Your task to perform on an android device: delete location history Image 0: 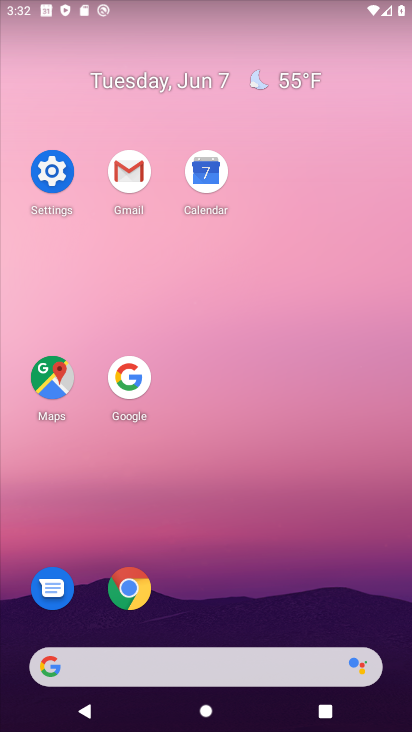
Step 0: click (45, 184)
Your task to perform on an android device: delete location history Image 1: 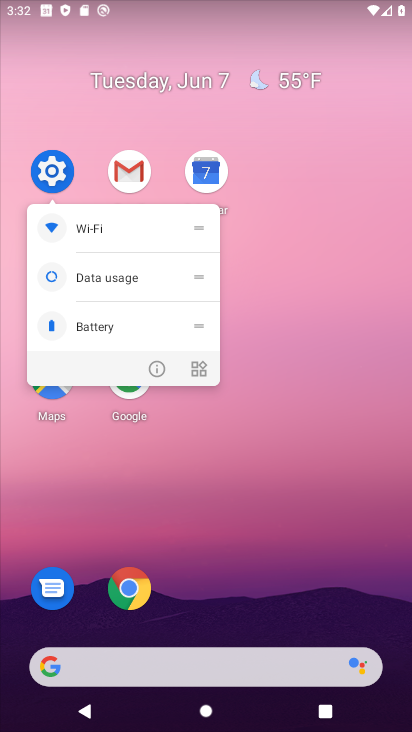
Step 1: click (71, 167)
Your task to perform on an android device: delete location history Image 2: 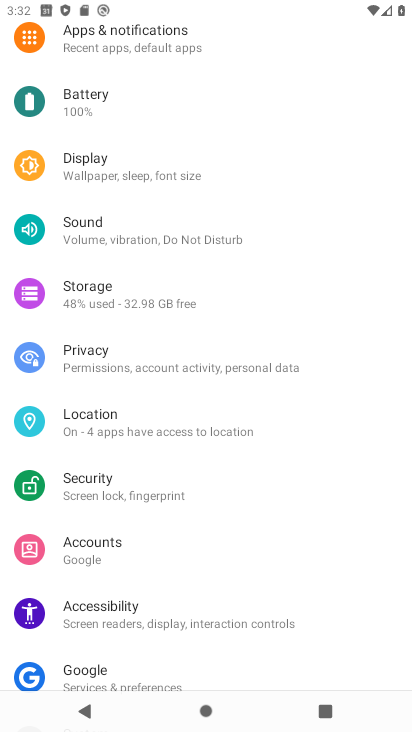
Step 2: drag from (185, 554) to (173, 187)
Your task to perform on an android device: delete location history Image 3: 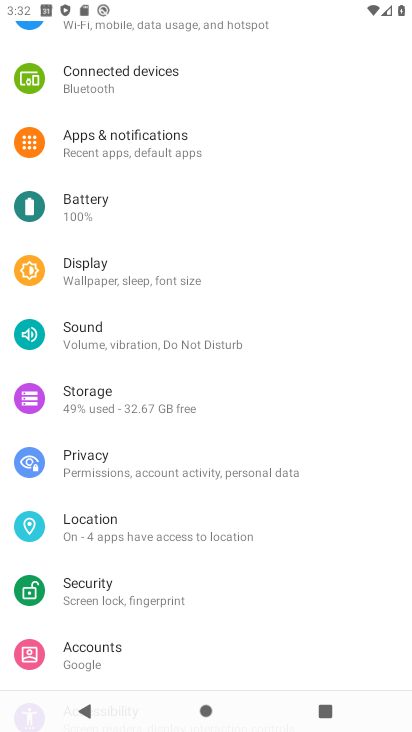
Step 3: click (191, 537)
Your task to perform on an android device: delete location history Image 4: 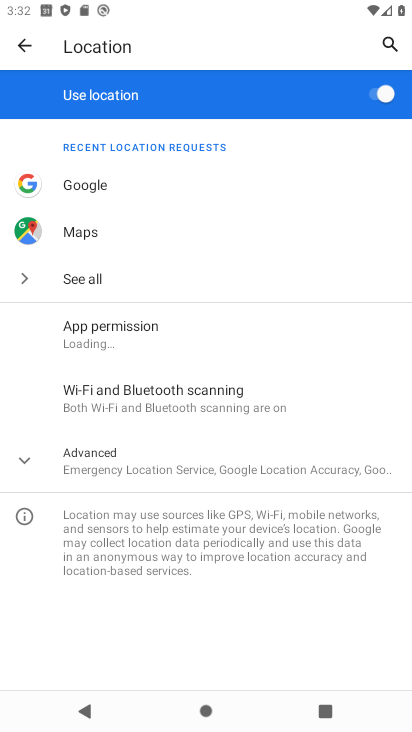
Step 4: click (167, 460)
Your task to perform on an android device: delete location history Image 5: 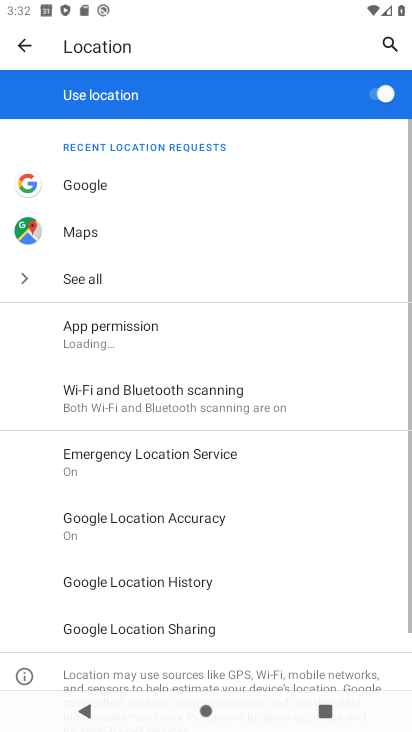
Step 5: drag from (164, 512) to (154, 235)
Your task to perform on an android device: delete location history Image 6: 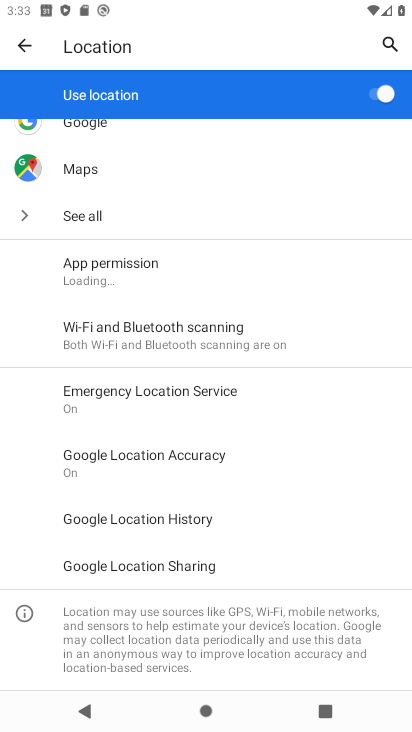
Step 6: click (225, 526)
Your task to perform on an android device: delete location history Image 7: 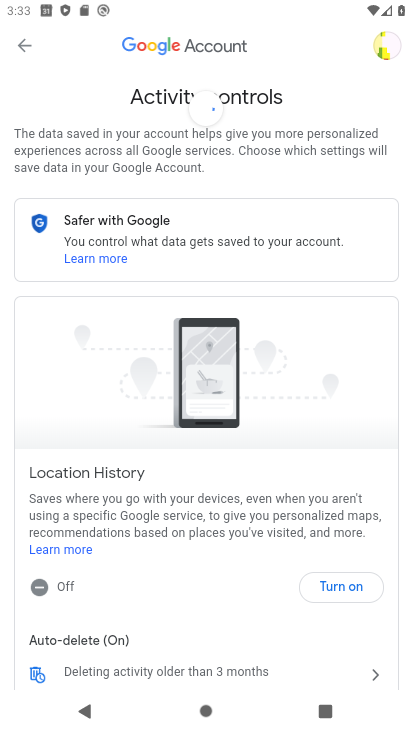
Step 7: drag from (253, 628) to (302, 253)
Your task to perform on an android device: delete location history Image 8: 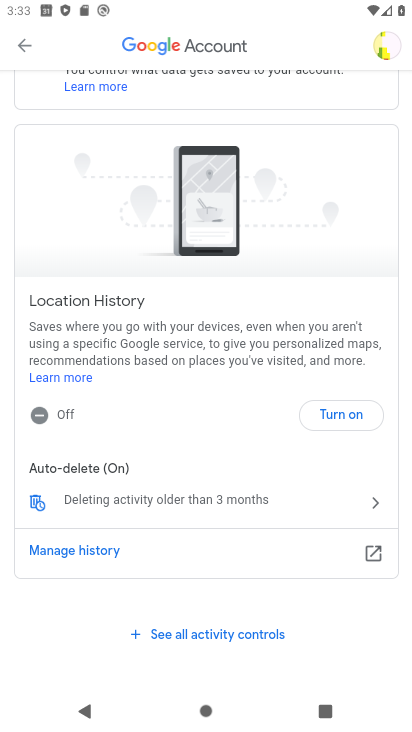
Step 8: click (239, 503)
Your task to perform on an android device: delete location history Image 9: 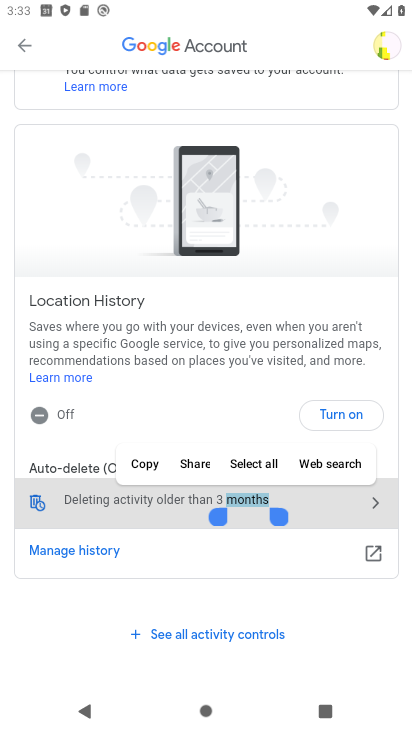
Step 9: click (349, 509)
Your task to perform on an android device: delete location history Image 10: 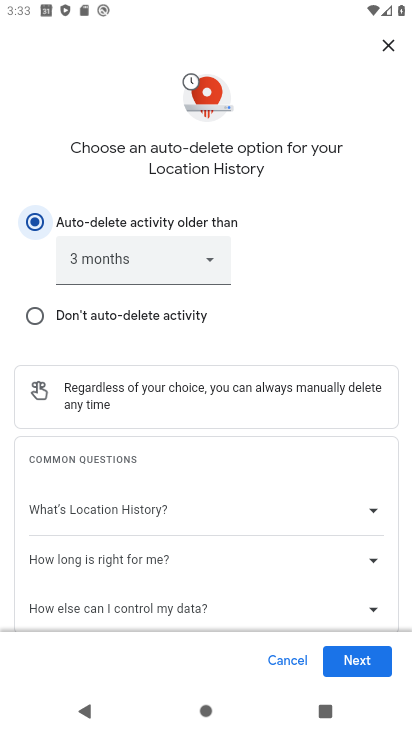
Step 10: click (367, 668)
Your task to perform on an android device: delete location history Image 11: 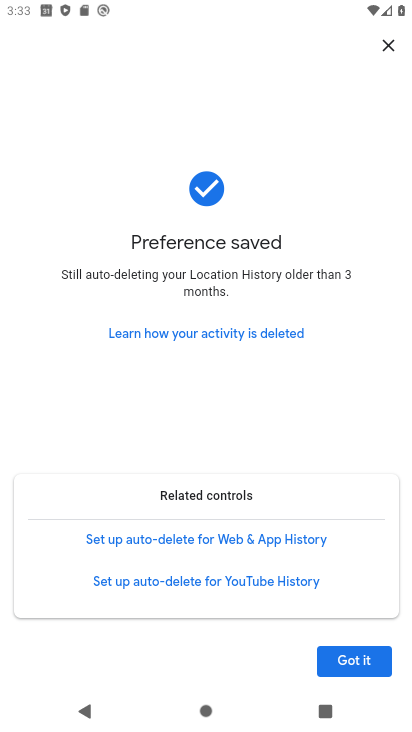
Step 11: click (336, 684)
Your task to perform on an android device: delete location history Image 12: 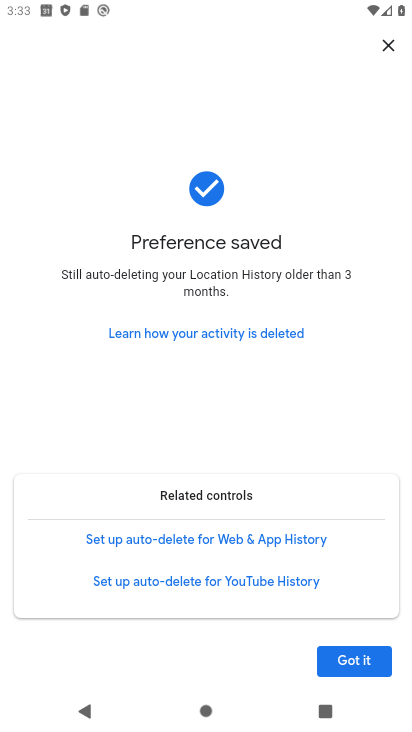
Step 12: click (347, 665)
Your task to perform on an android device: delete location history Image 13: 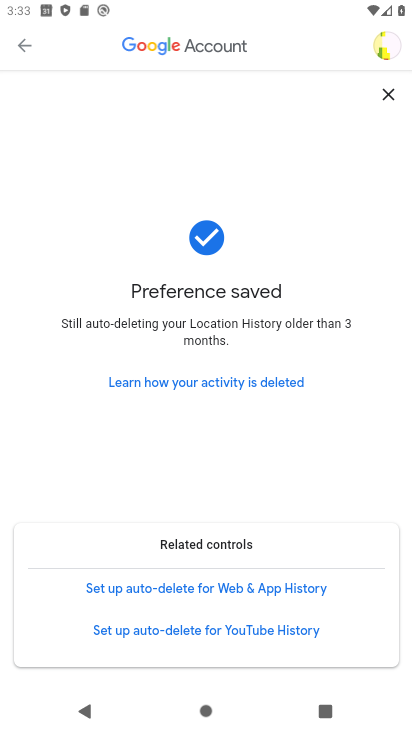
Step 13: task complete